Your task to perform on an android device: see creations saved in the google photos Image 0: 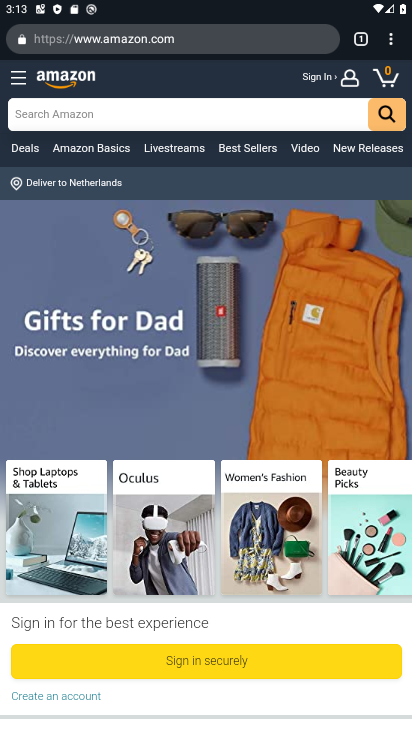
Step 0: press home button
Your task to perform on an android device: see creations saved in the google photos Image 1: 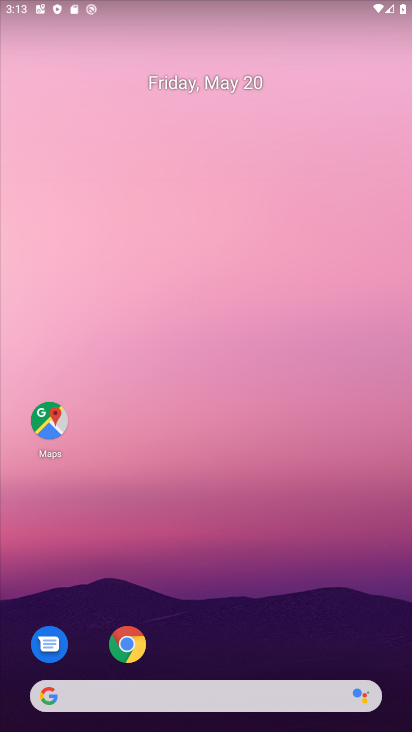
Step 1: drag from (232, 605) to (247, 5)
Your task to perform on an android device: see creations saved in the google photos Image 2: 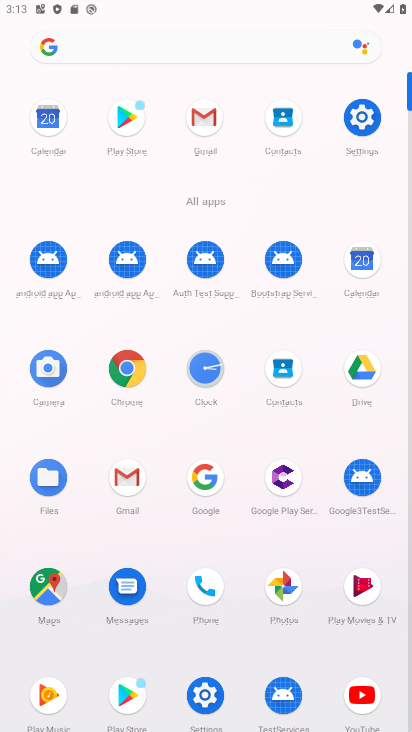
Step 2: click (278, 614)
Your task to perform on an android device: see creations saved in the google photos Image 3: 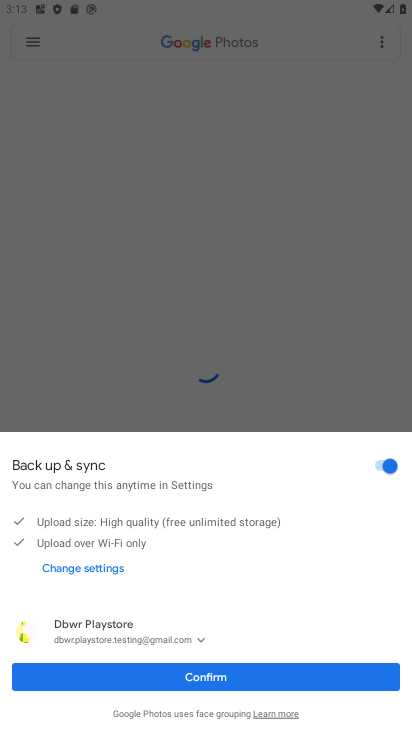
Step 3: click (226, 675)
Your task to perform on an android device: see creations saved in the google photos Image 4: 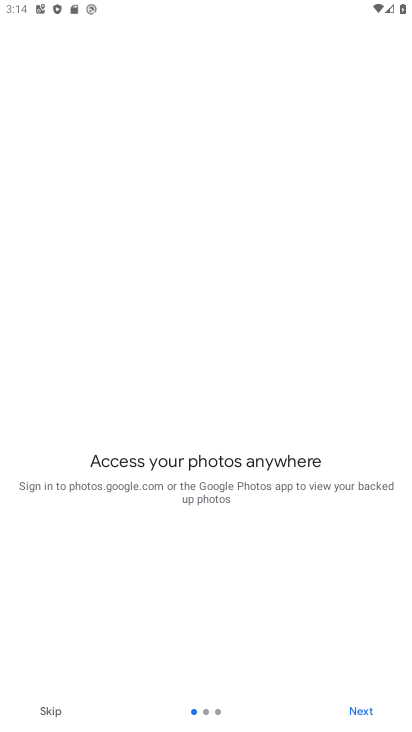
Step 4: click (376, 693)
Your task to perform on an android device: see creations saved in the google photos Image 5: 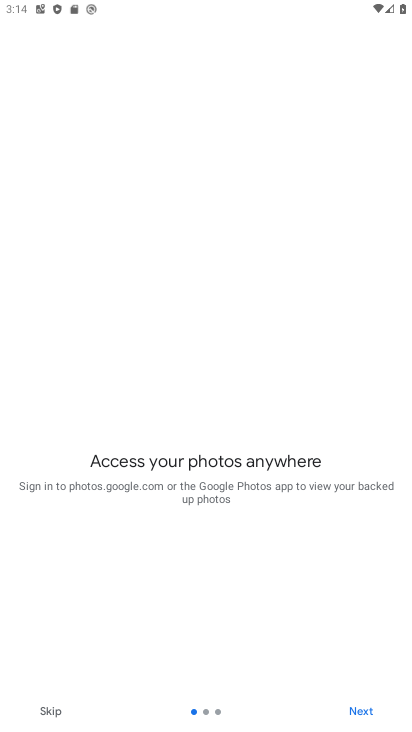
Step 5: click (376, 693)
Your task to perform on an android device: see creations saved in the google photos Image 6: 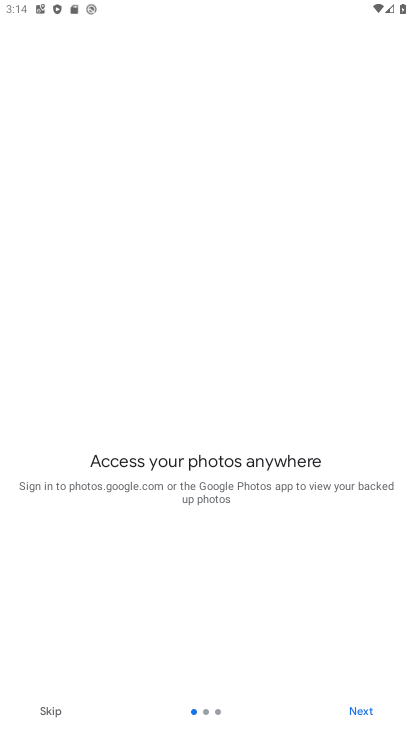
Step 6: click (383, 721)
Your task to perform on an android device: see creations saved in the google photos Image 7: 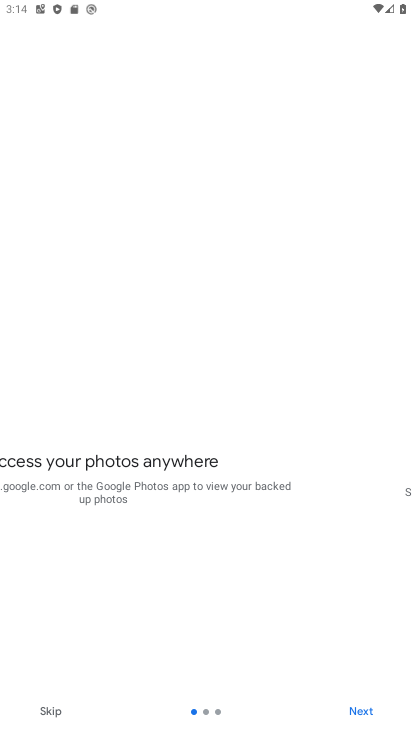
Step 7: click (383, 721)
Your task to perform on an android device: see creations saved in the google photos Image 8: 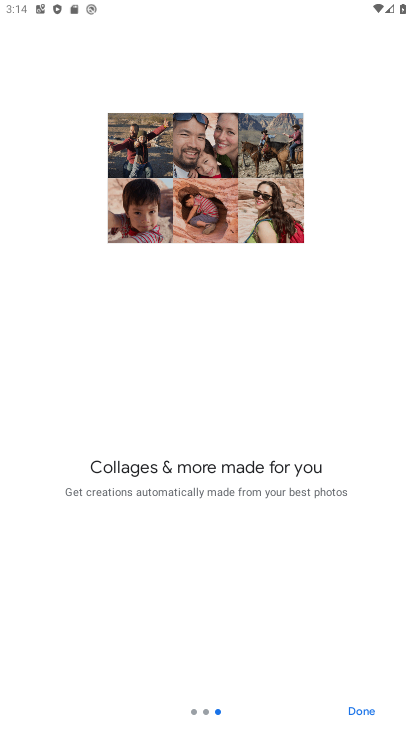
Step 8: click (367, 715)
Your task to perform on an android device: see creations saved in the google photos Image 9: 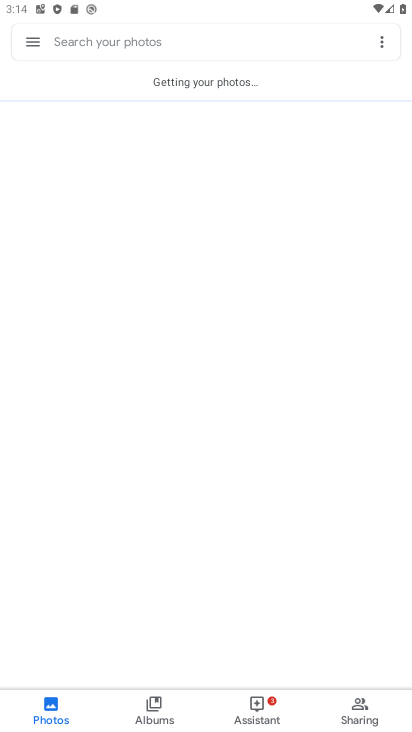
Step 9: click (158, 694)
Your task to perform on an android device: see creations saved in the google photos Image 10: 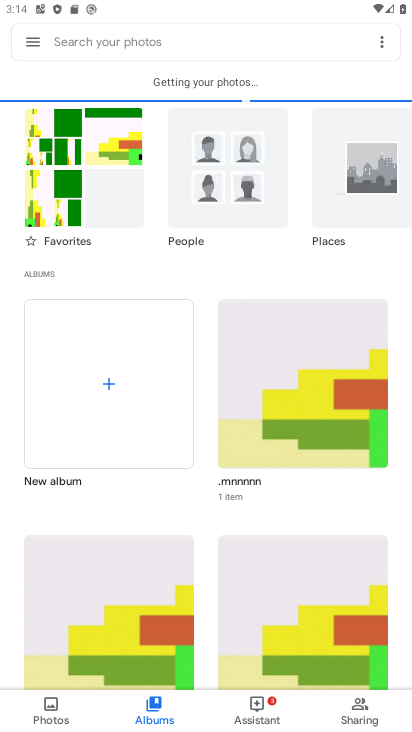
Step 10: task complete